Your task to perform on an android device: Go to display settings Image 0: 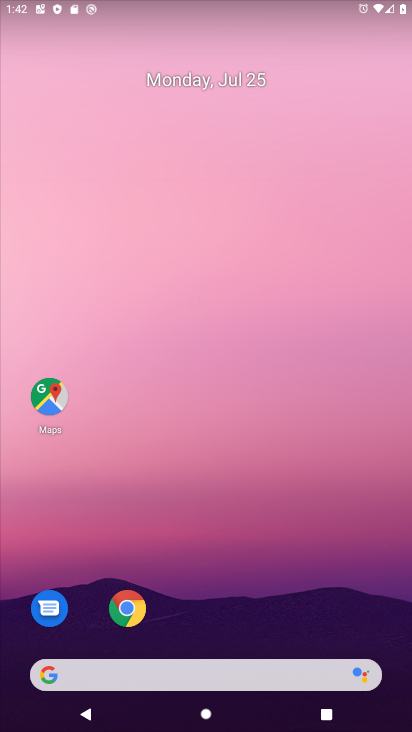
Step 0: drag from (341, 554) to (241, 33)
Your task to perform on an android device: Go to display settings Image 1: 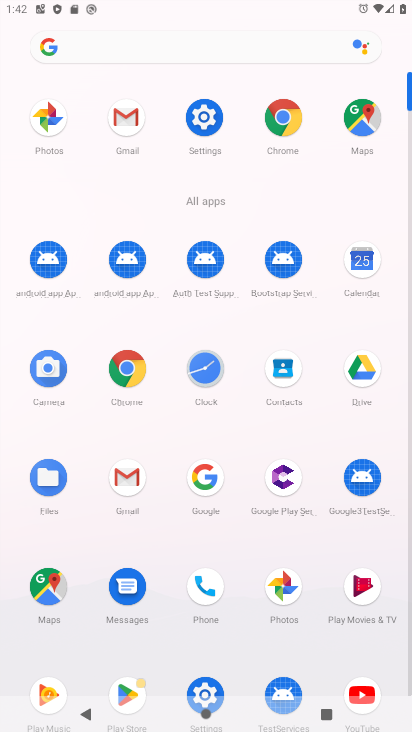
Step 1: click (202, 109)
Your task to perform on an android device: Go to display settings Image 2: 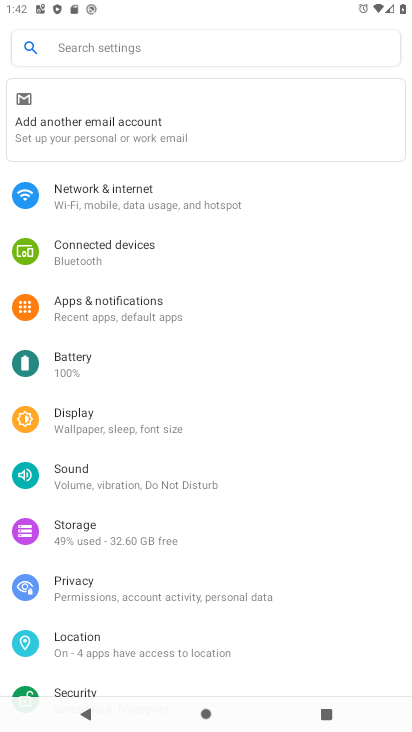
Step 2: click (167, 423)
Your task to perform on an android device: Go to display settings Image 3: 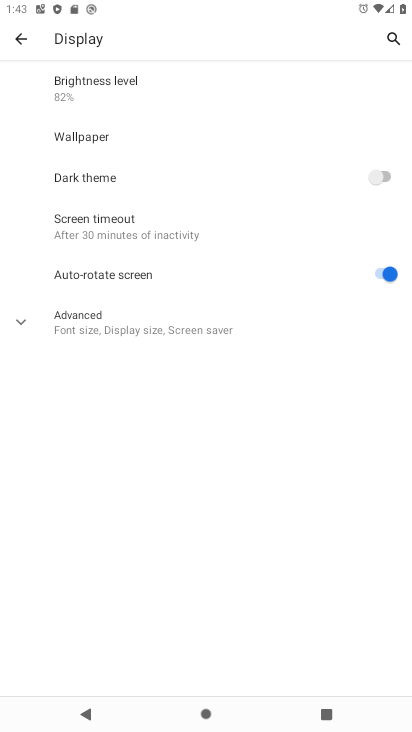
Step 3: task complete